Your task to perform on an android device: check the backup settings in the google photos Image 0: 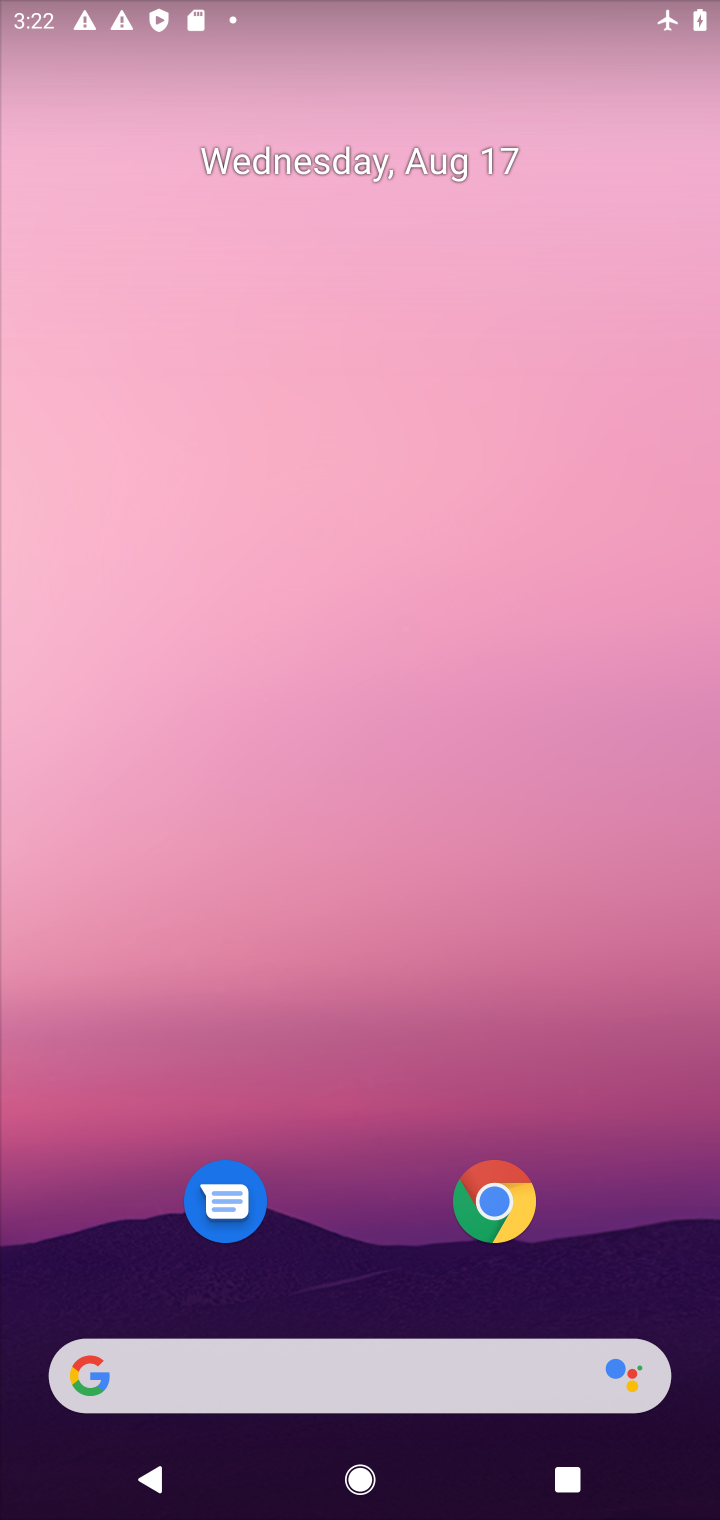
Step 0: drag from (338, 954) to (510, 48)
Your task to perform on an android device: check the backup settings in the google photos Image 1: 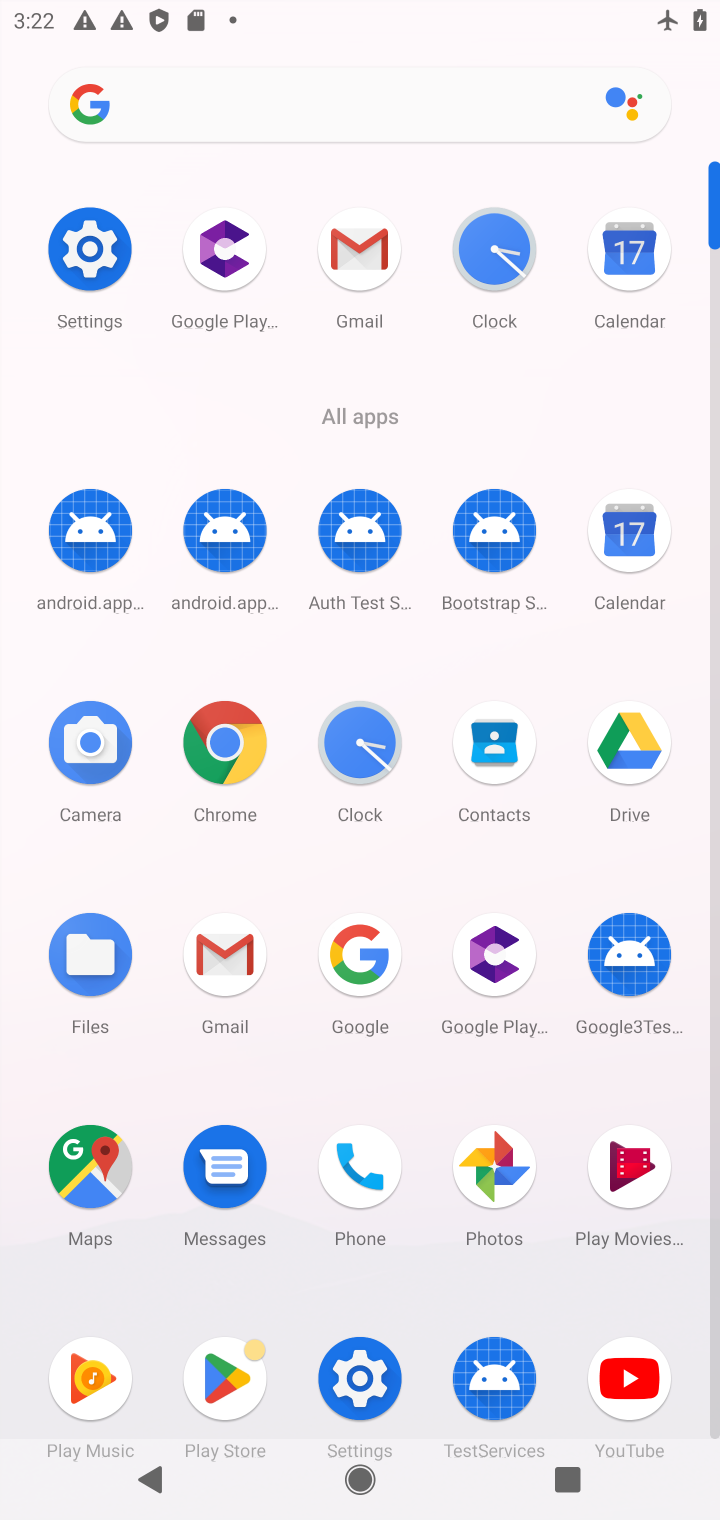
Step 1: click (470, 1153)
Your task to perform on an android device: check the backup settings in the google photos Image 2: 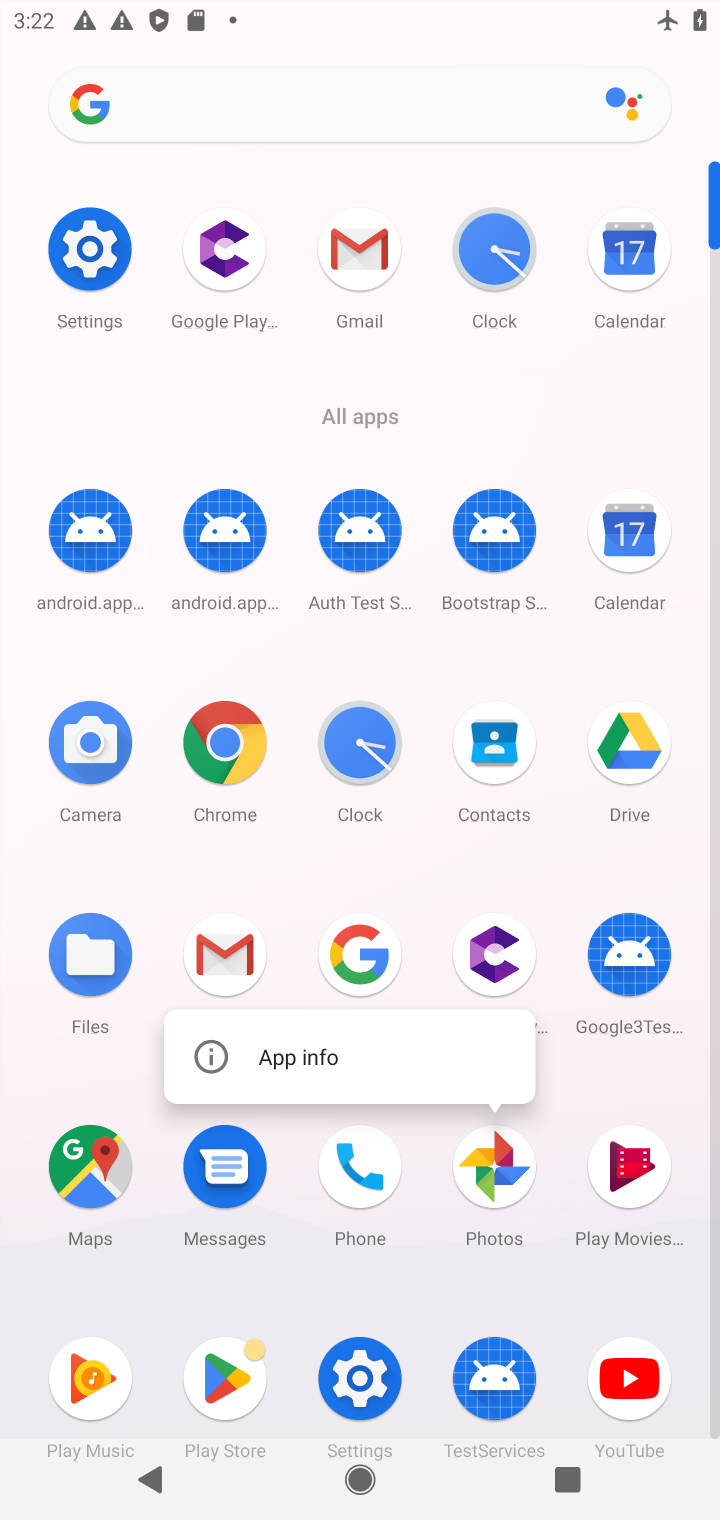
Step 2: click (505, 1173)
Your task to perform on an android device: check the backup settings in the google photos Image 3: 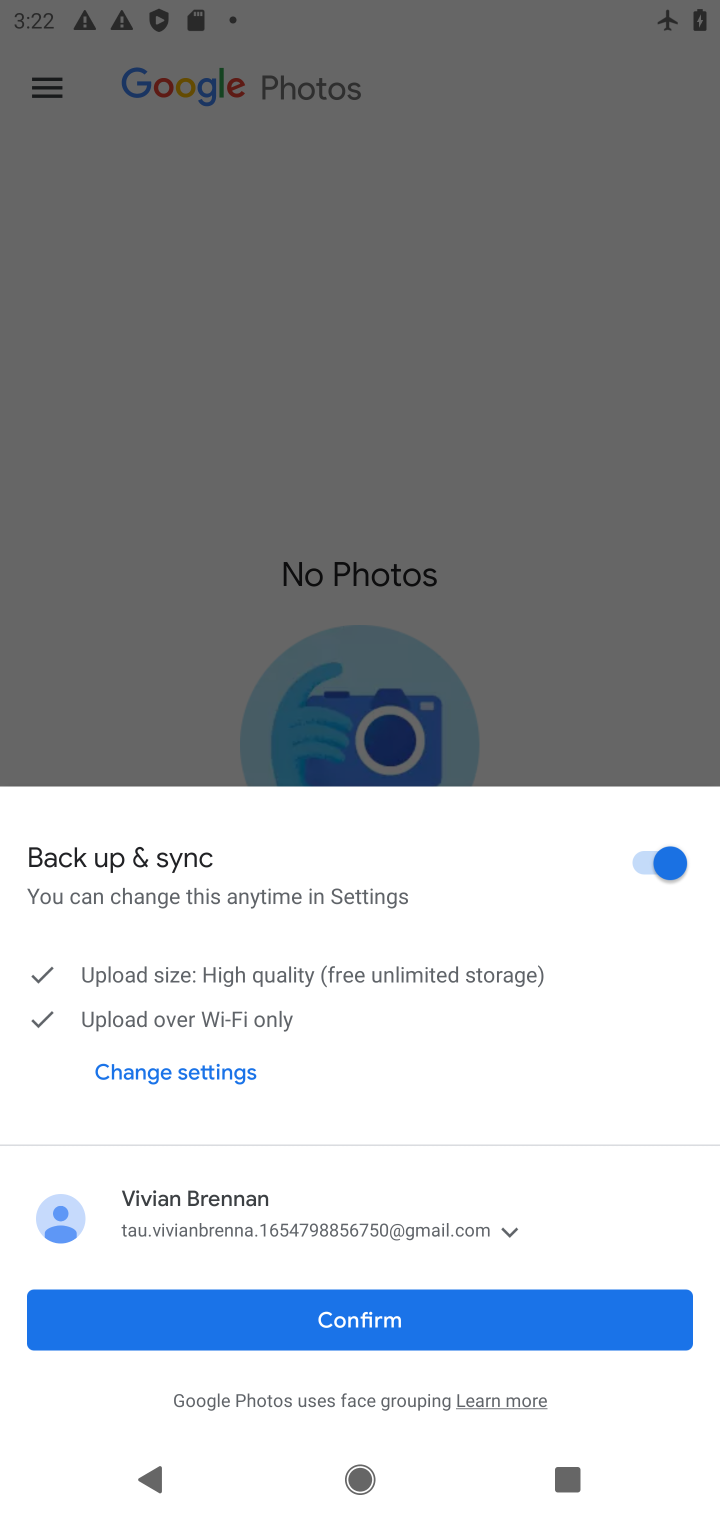
Step 3: click (382, 1327)
Your task to perform on an android device: check the backup settings in the google photos Image 4: 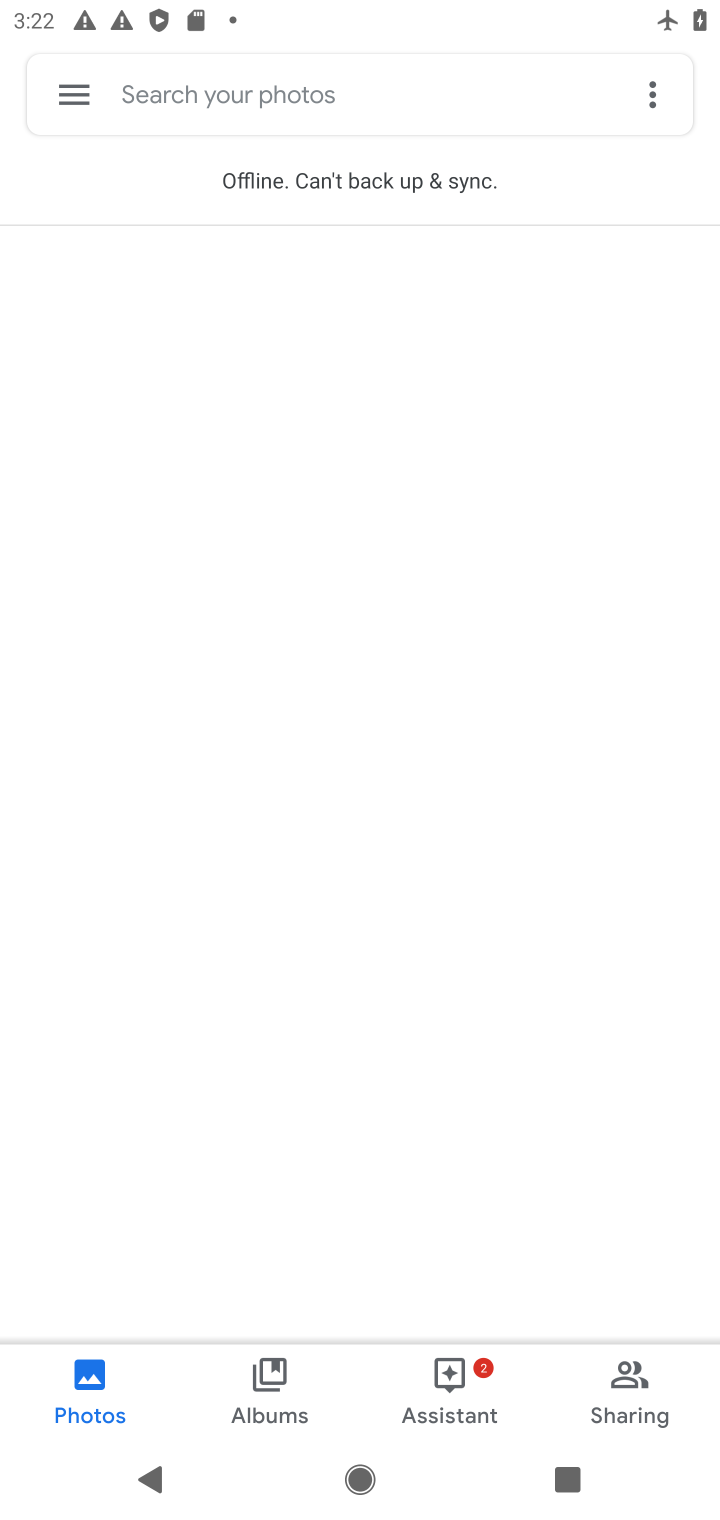
Step 4: click (74, 82)
Your task to perform on an android device: check the backup settings in the google photos Image 5: 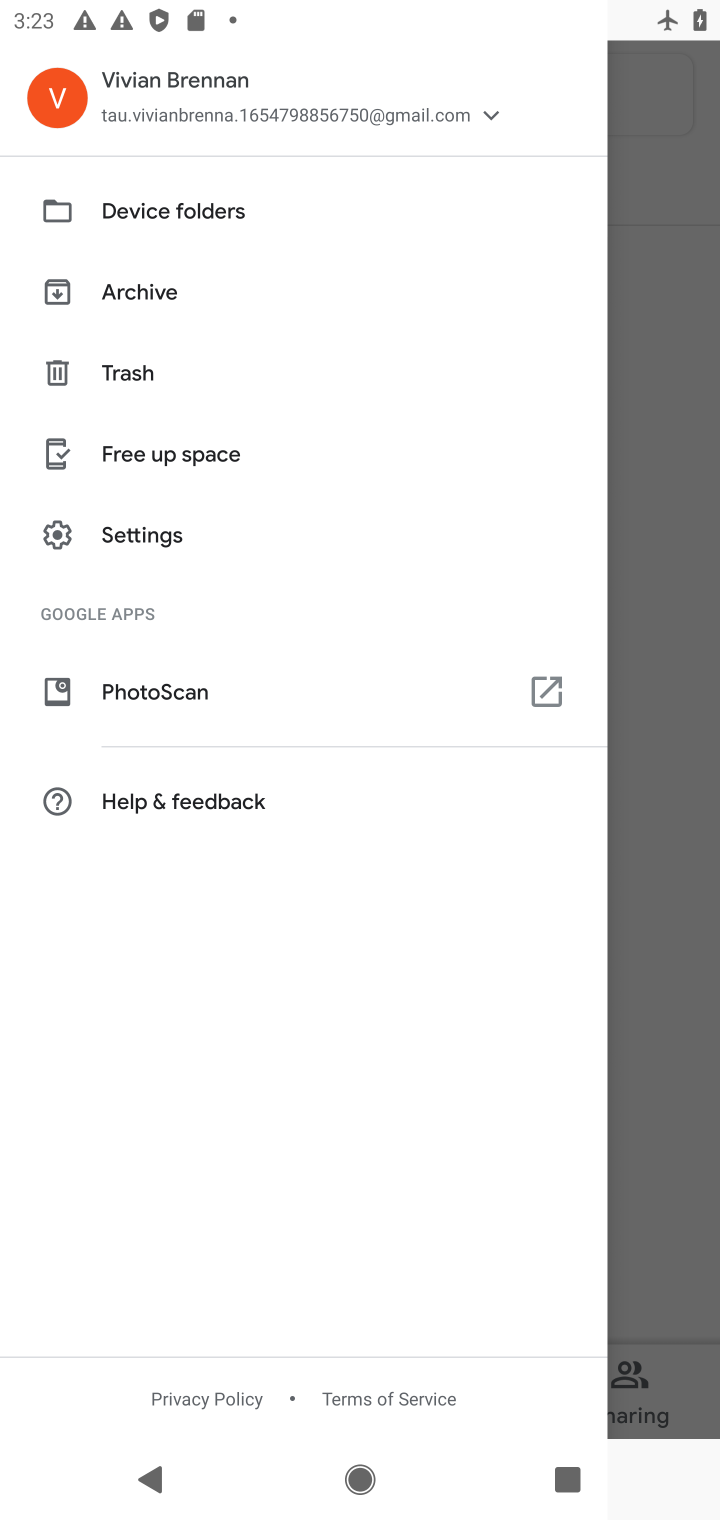
Step 5: click (142, 527)
Your task to perform on an android device: check the backup settings in the google photos Image 6: 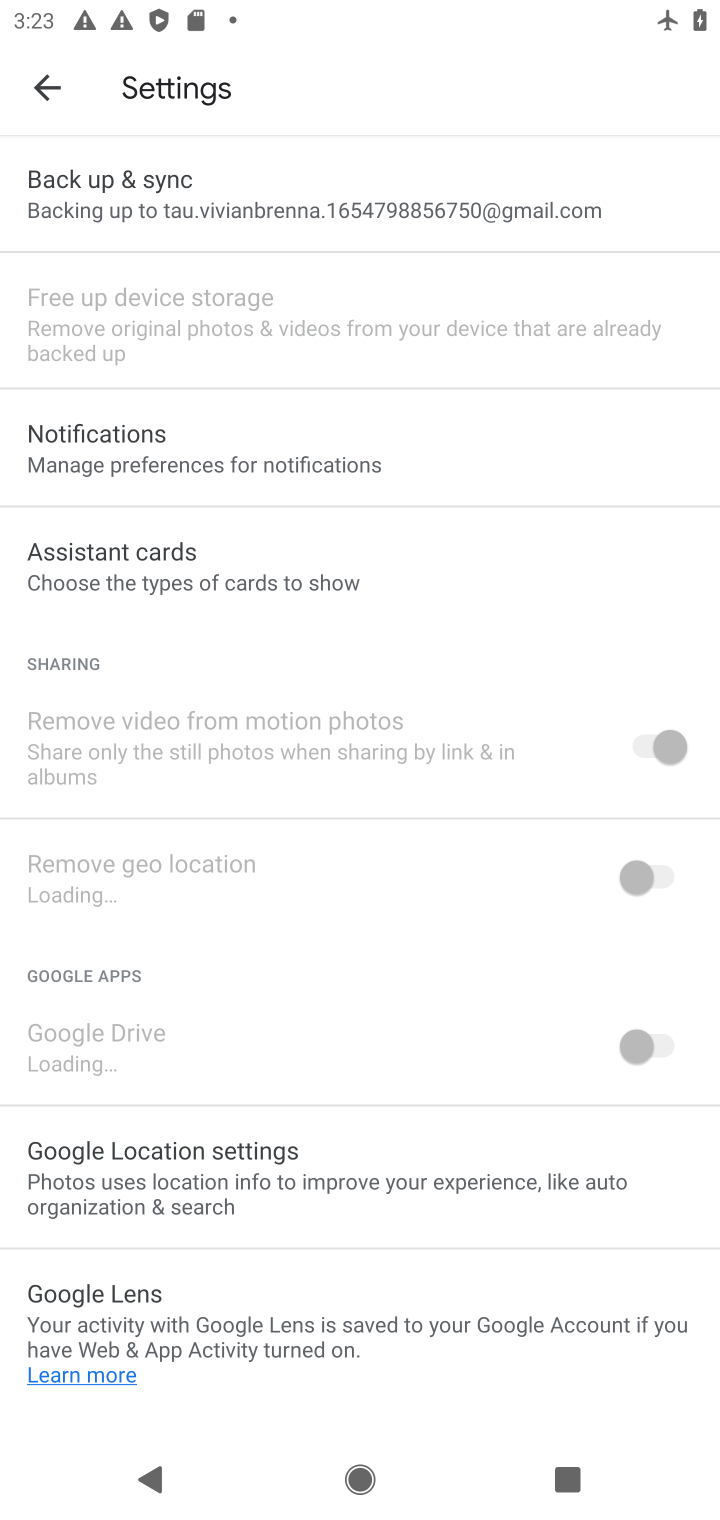
Step 6: click (190, 200)
Your task to perform on an android device: check the backup settings in the google photos Image 7: 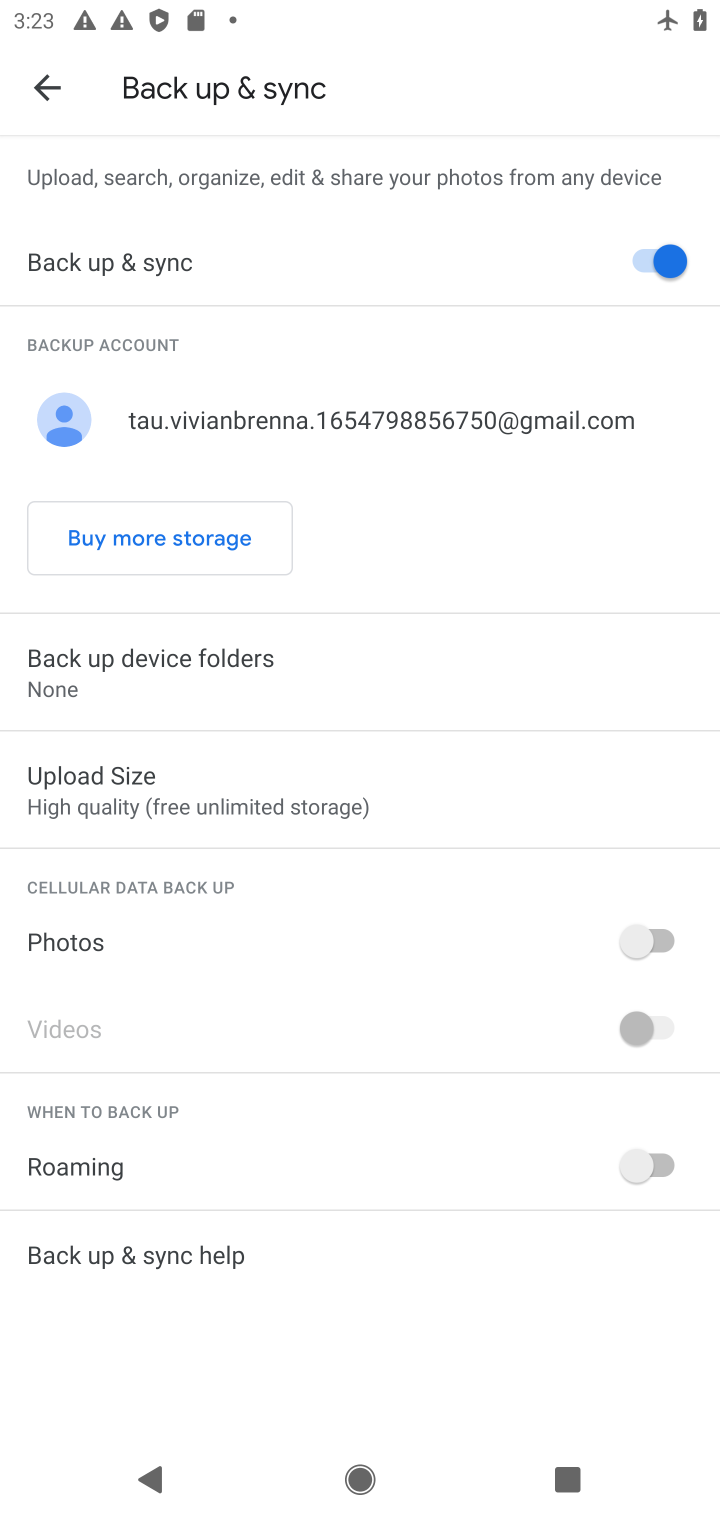
Step 7: task complete